Your task to perform on an android device: change the clock display to digital Image 0: 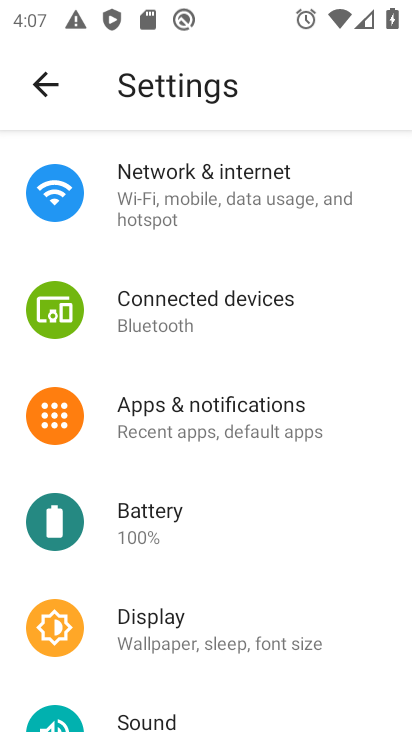
Step 0: press home button
Your task to perform on an android device: change the clock display to digital Image 1: 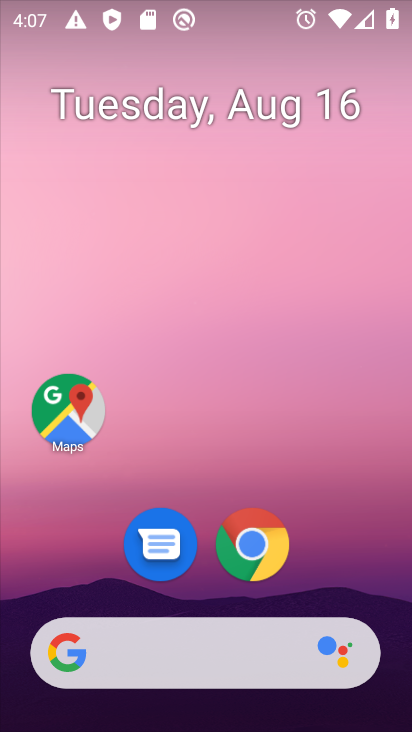
Step 1: drag from (200, 480) to (205, 141)
Your task to perform on an android device: change the clock display to digital Image 2: 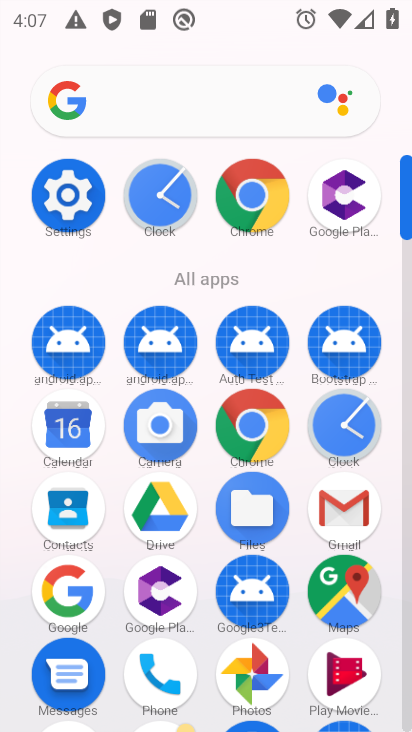
Step 2: click (352, 415)
Your task to perform on an android device: change the clock display to digital Image 3: 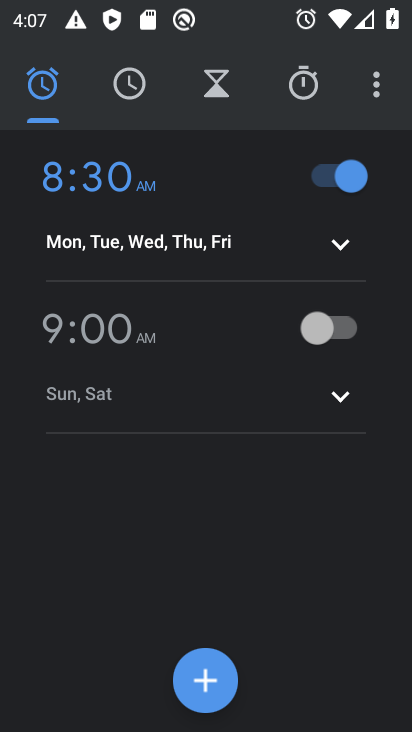
Step 3: click (368, 93)
Your task to perform on an android device: change the clock display to digital Image 4: 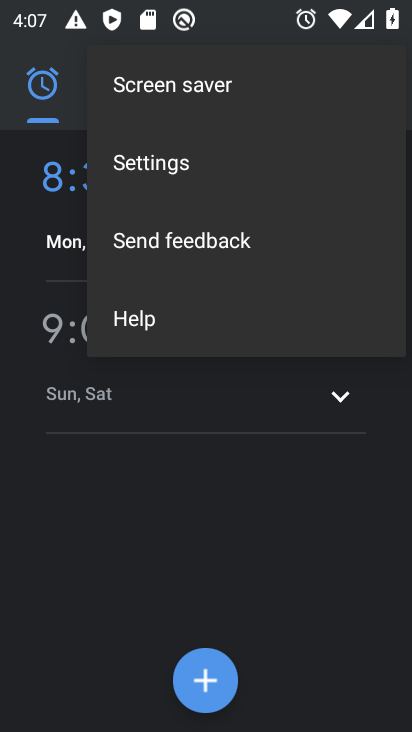
Step 4: click (255, 164)
Your task to perform on an android device: change the clock display to digital Image 5: 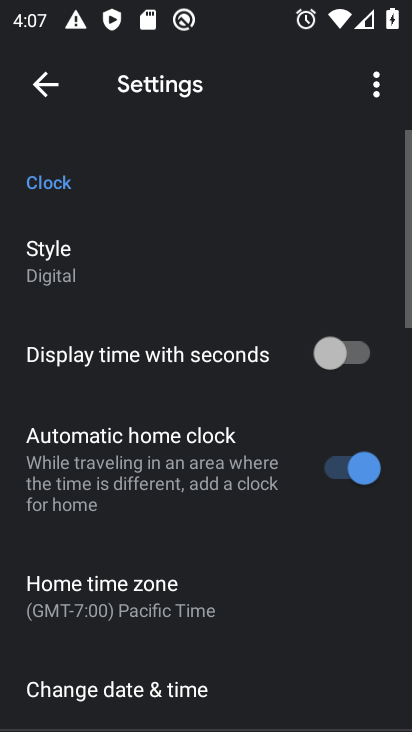
Step 5: click (127, 258)
Your task to perform on an android device: change the clock display to digital Image 6: 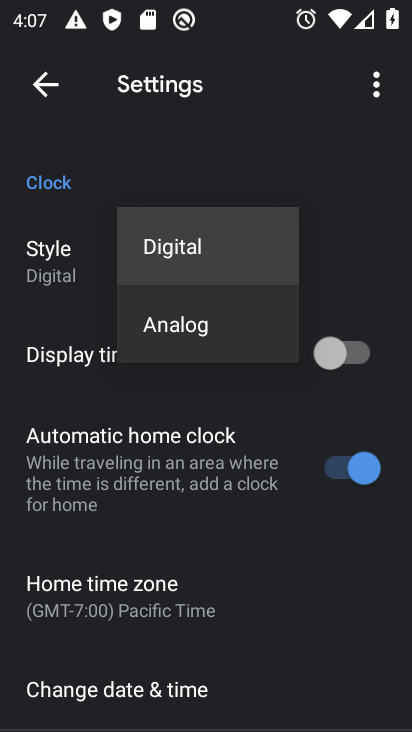
Step 6: task complete